Your task to perform on an android device: Open CNN.com Image 0: 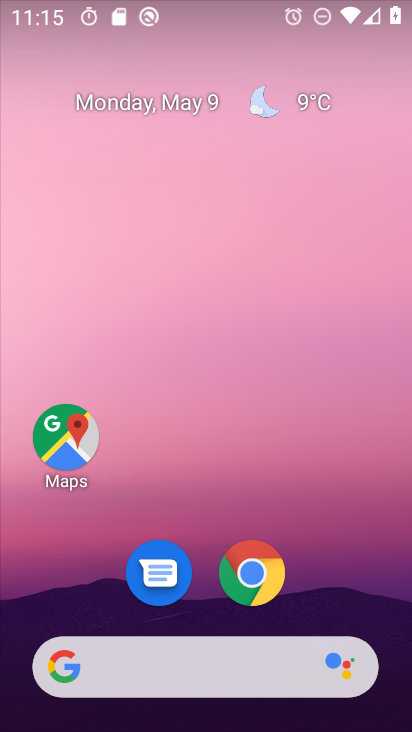
Step 0: click (256, 569)
Your task to perform on an android device: Open CNN.com Image 1: 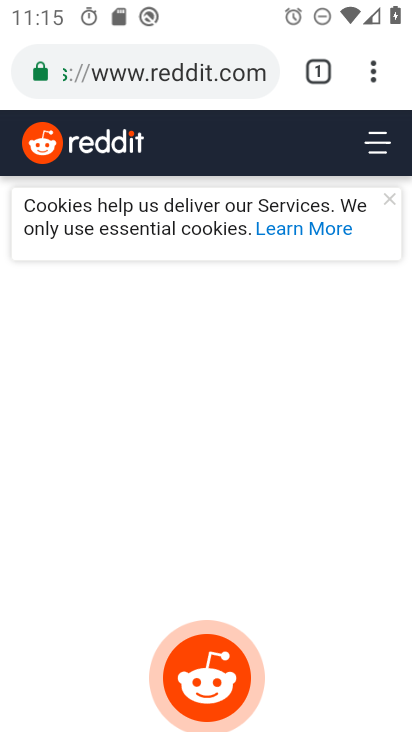
Step 1: click (233, 72)
Your task to perform on an android device: Open CNN.com Image 2: 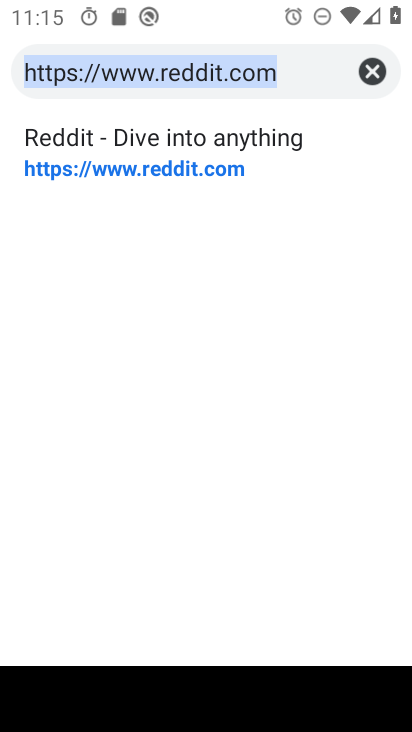
Step 2: type "cnn.com"
Your task to perform on an android device: Open CNN.com Image 3: 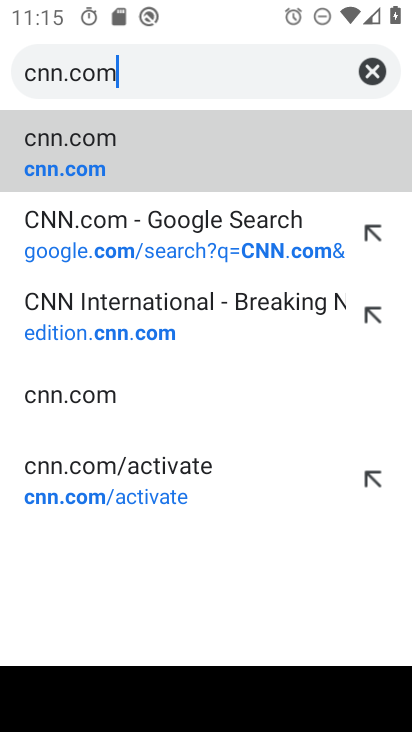
Step 3: click (58, 166)
Your task to perform on an android device: Open CNN.com Image 4: 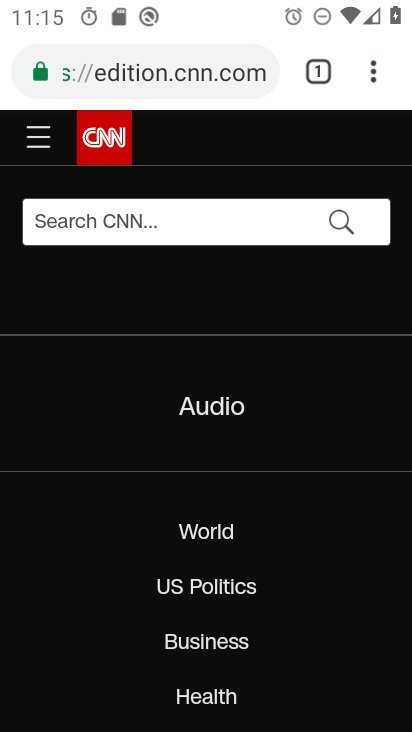
Step 4: task complete